Your task to perform on an android device: delete a single message in the gmail app Image 0: 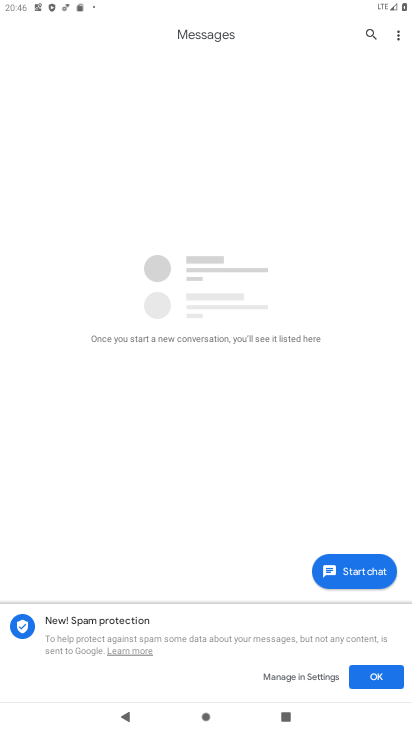
Step 0: press home button
Your task to perform on an android device: delete a single message in the gmail app Image 1: 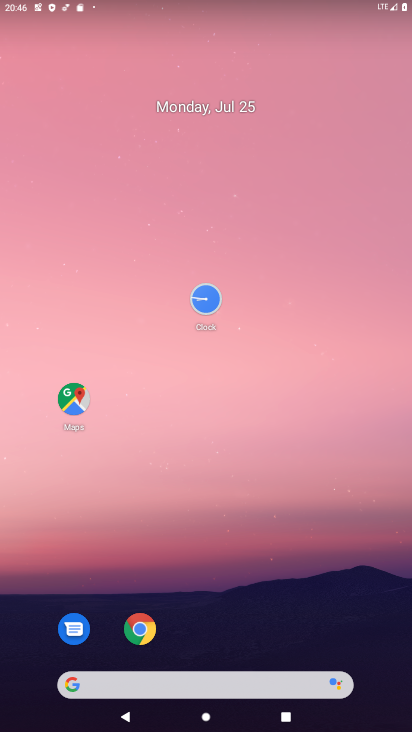
Step 1: drag from (209, 649) to (226, 2)
Your task to perform on an android device: delete a single message in the gmail app Image 2: 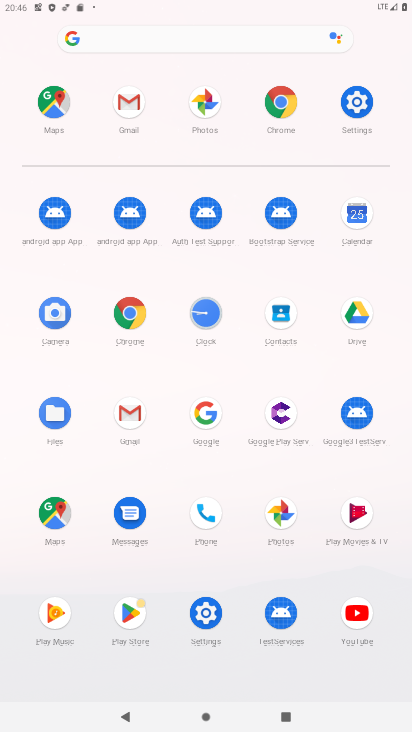
Step 2: click (124, 427)
Your task to perform on an android device: delete a single message in the gmail app Image 3: 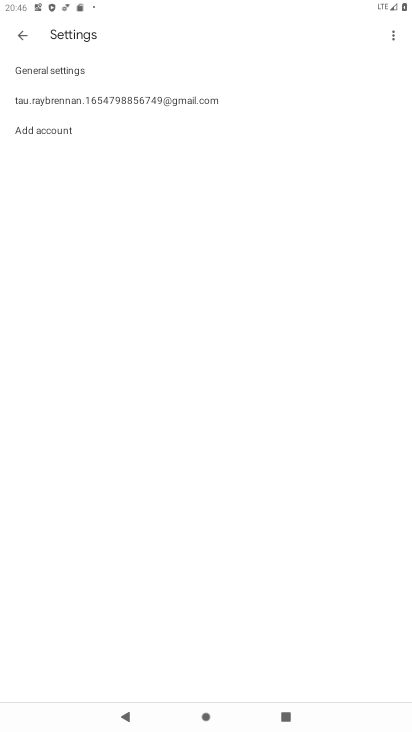
Step 3: click (26, 39)
Your task to perform on an android device: delete a single message in the gmail app Image 4: 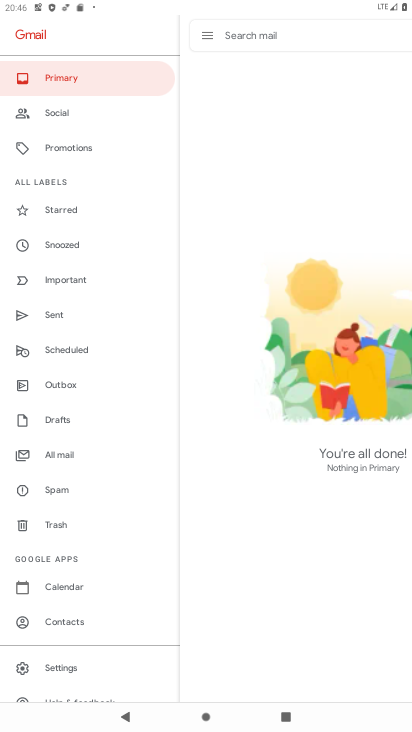
Step 4: click (106, 93)
Your task to perform on an android device: delete a single message in the gmail app Image 5: 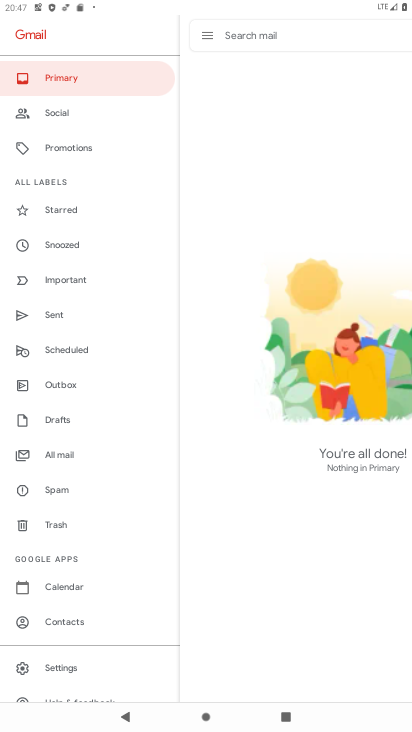
Step 5: task complete